Your task to perform on an android device: Open calendar and show me the second week of next month Image 0: 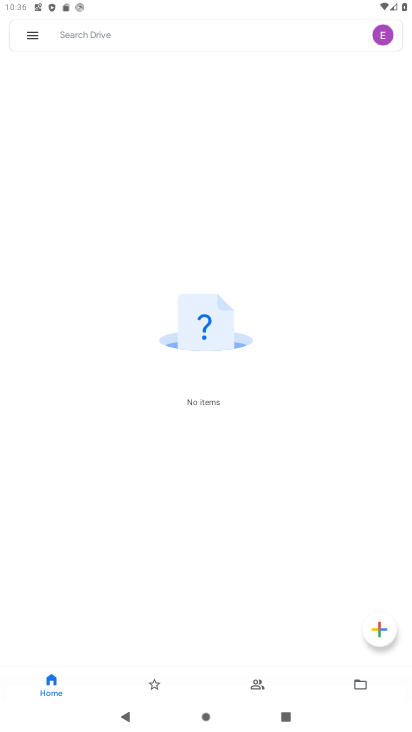
Step 0: task complete